Your task to perform on an android device: Empty the shopping cart on amazon. Add alienware area 51 to the cart on amazon, then select checkout. Image 0: 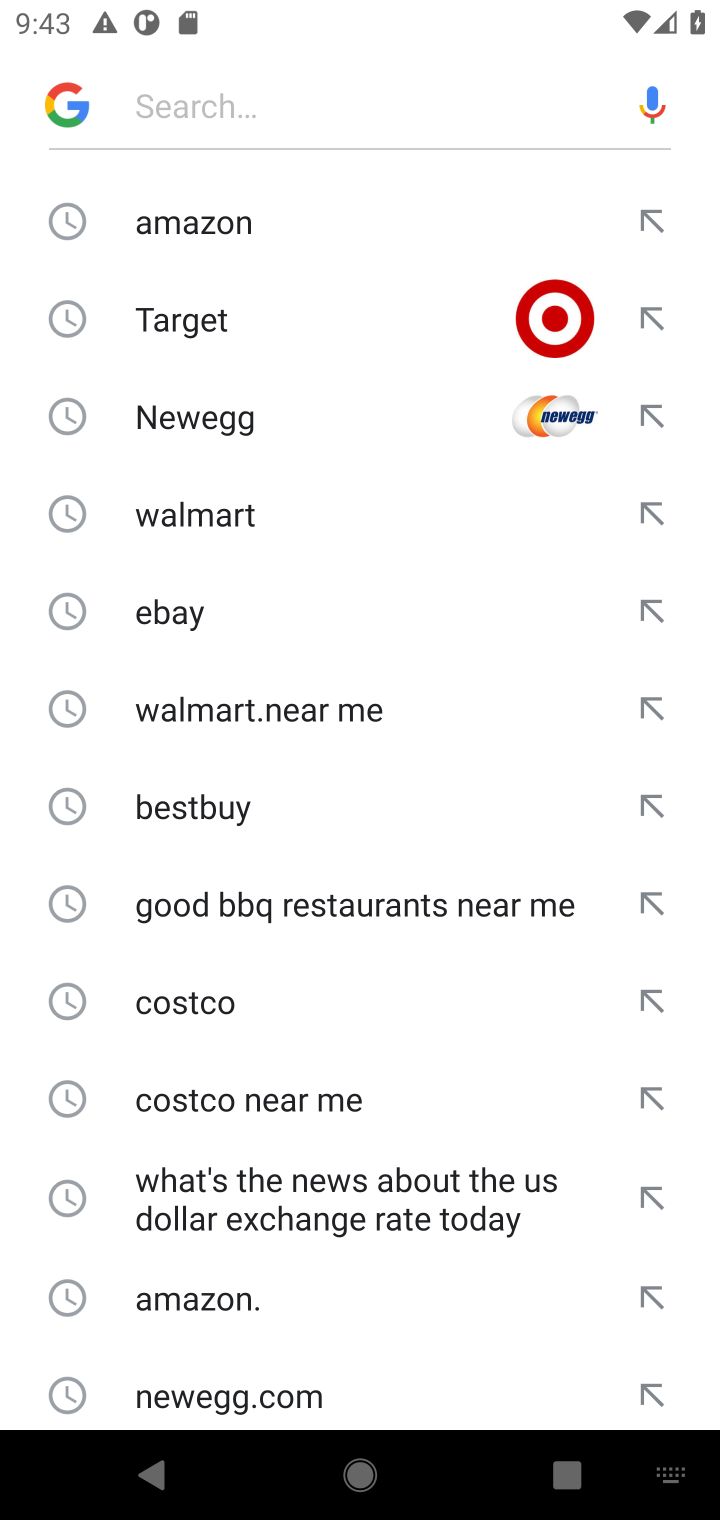
Step 0: click (156, 117)
Your task to perform on an android device: Empty the shopping cart on amazon. Add alienware area 51 to the cart on amazon, then select checkout. Image 1: 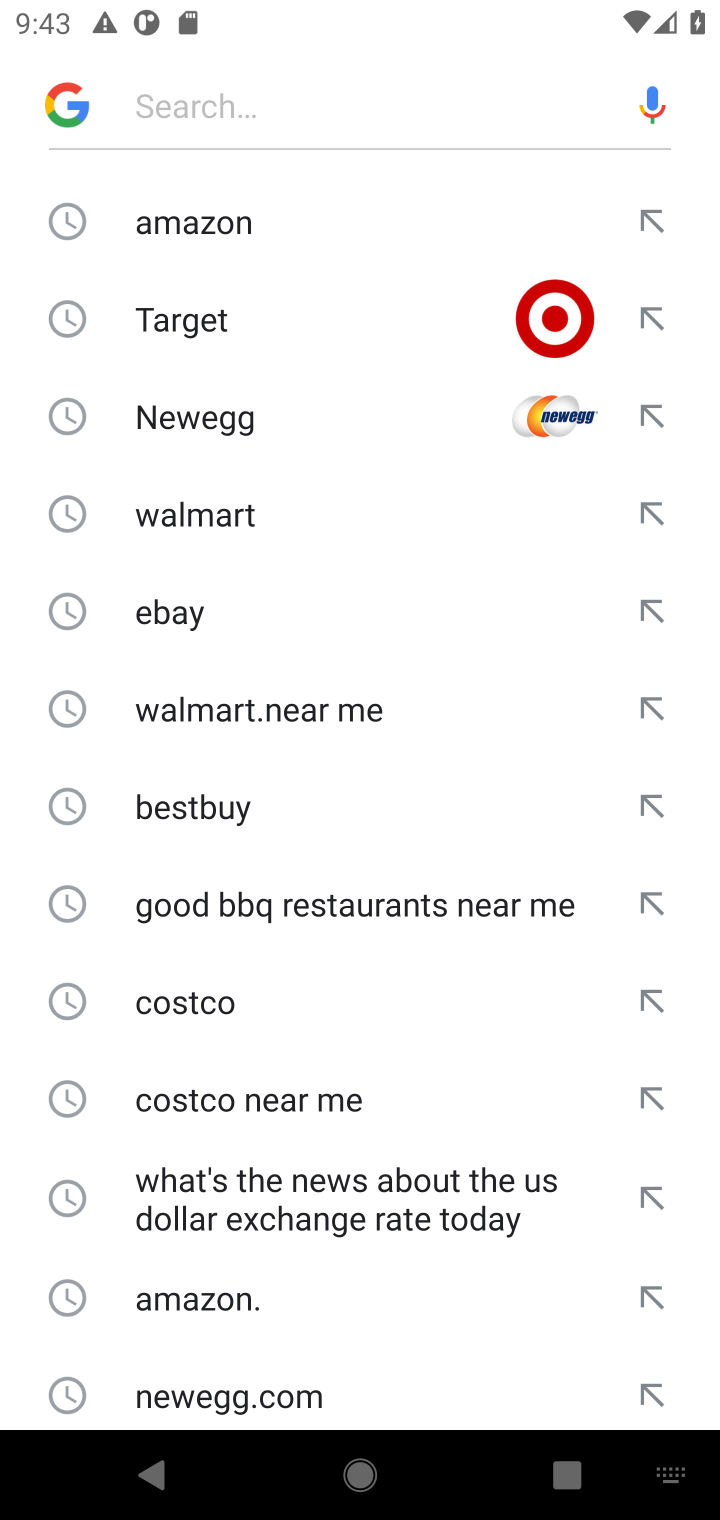
Step 1: type "amazon.com"
Your task to perform on an android device: Empty the shopping cart on amazon. Add alienware area 51 to the cart on amazon, then select checkout. Image 2: 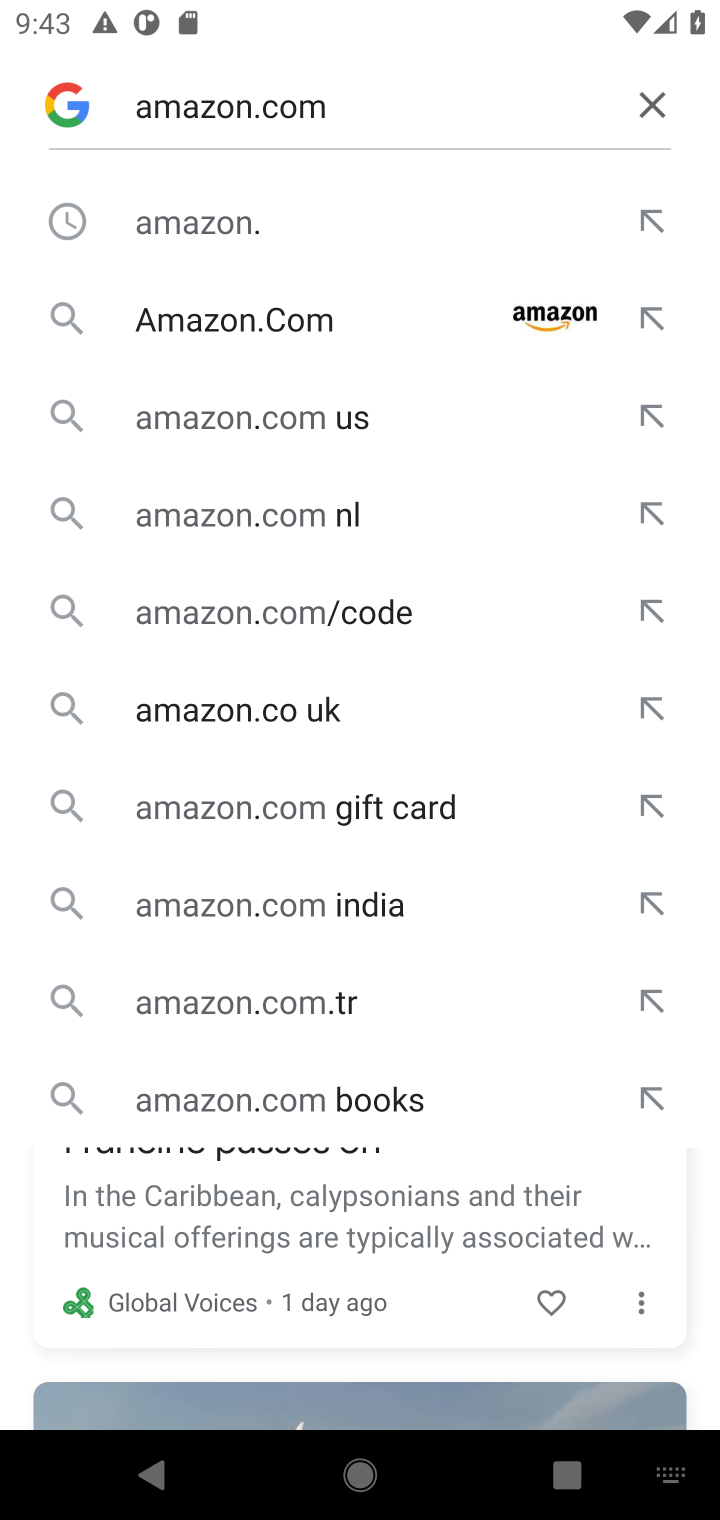
Step 2: click (182, 331)
Your task to perform on an android device: Empty the shopping cart on amazon. Add alienware area 51 to the cart on amazon, then select checkout. Image 3: 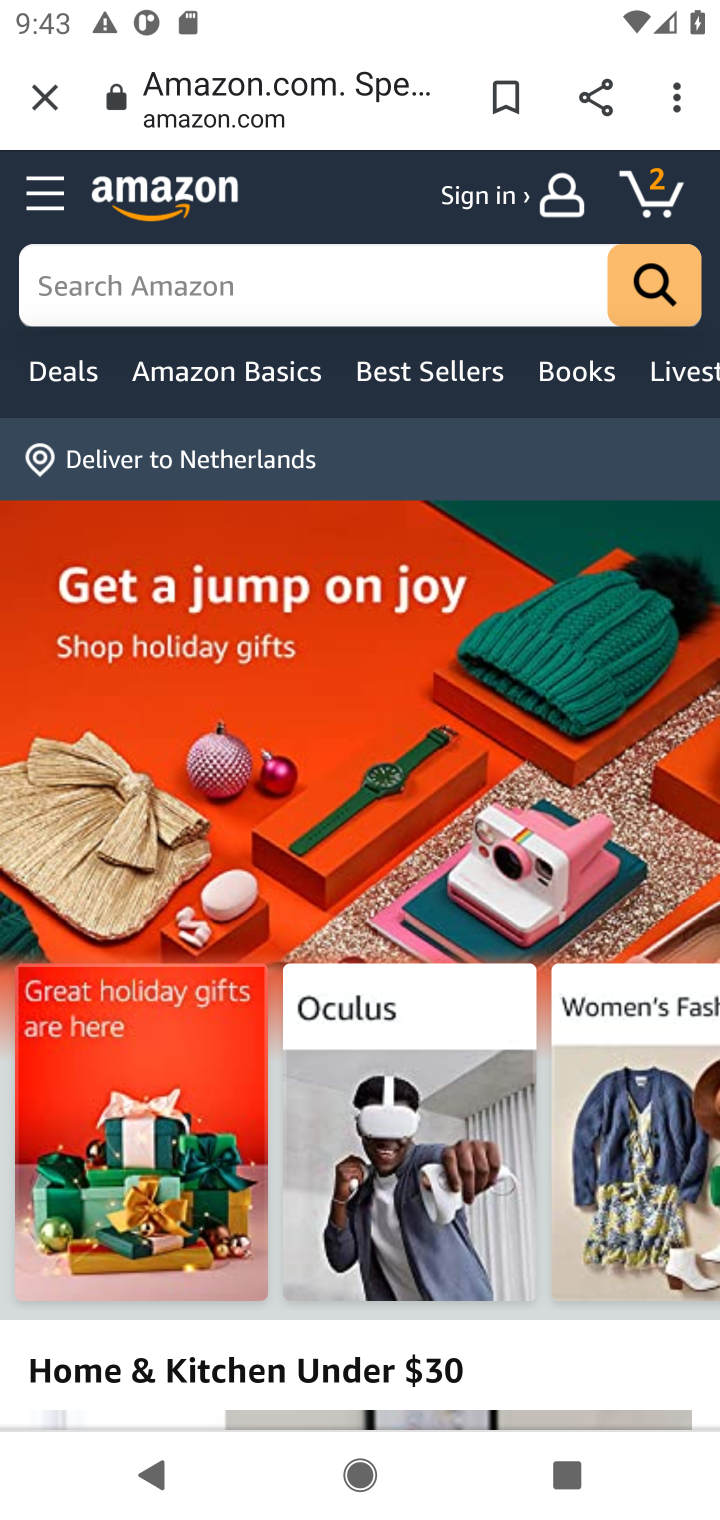
Step 3: click (643, 200)
Your task to perform on an android device: Empty the shopping cart on amazon. Add alienware area 51 to the cart on amazon, then select checkout. Image 4: 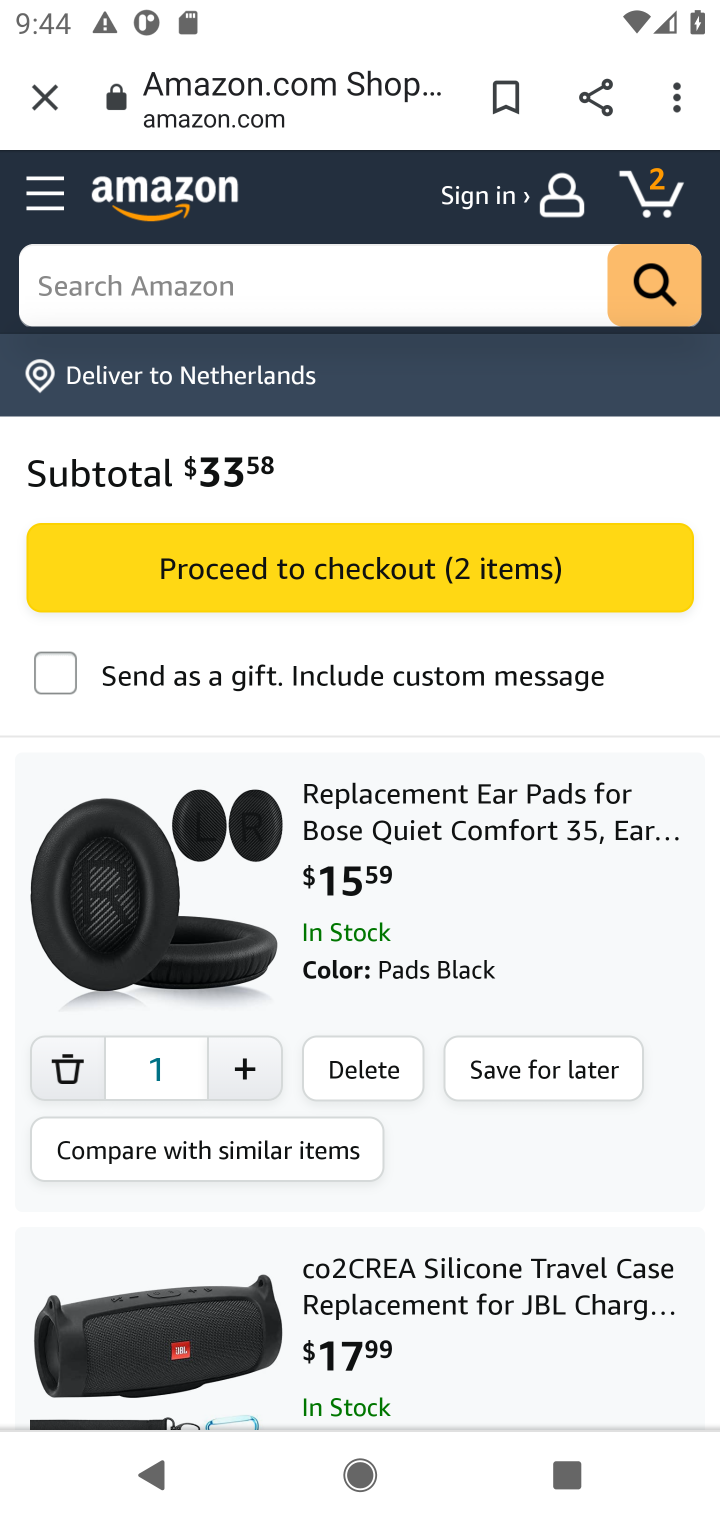
Step 4: click (359, 1078)
Your task to perform on an android device: Empty the shopping cart on amazon. Add alienware area 51 to the cart on amazon, then select checkout. Image 5: 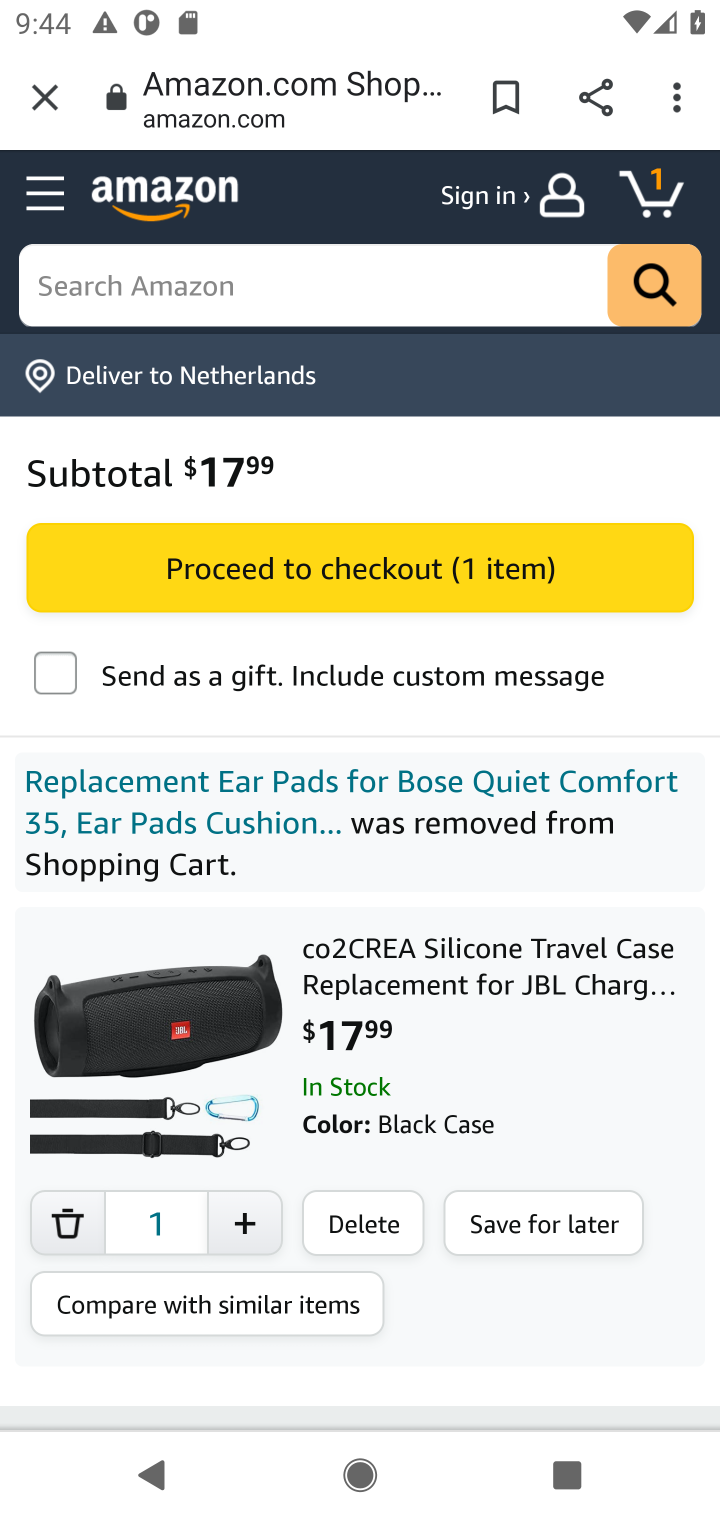
Step 5: click (349, 1244)
Your task to perform on an android device: Empty the shopping cart on amazon. Add alienware area 51 to the cart on amazon, then select checkout. Image 6: 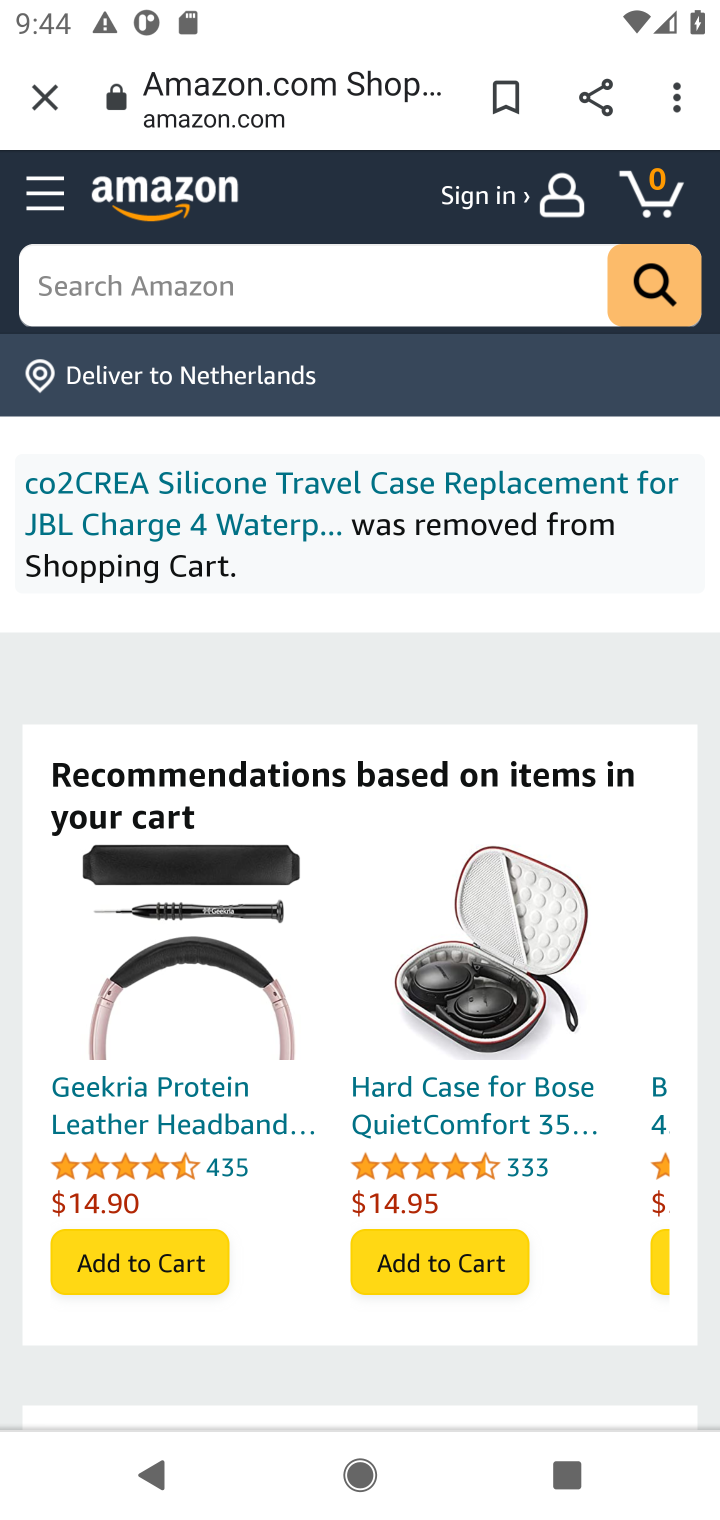
Step 6: click (185, 294)
Your task to perform on an android device: Empty the shopping cart on amazon. Add alienware area 51 to the cart on amazon, then select checkout. Image 7: 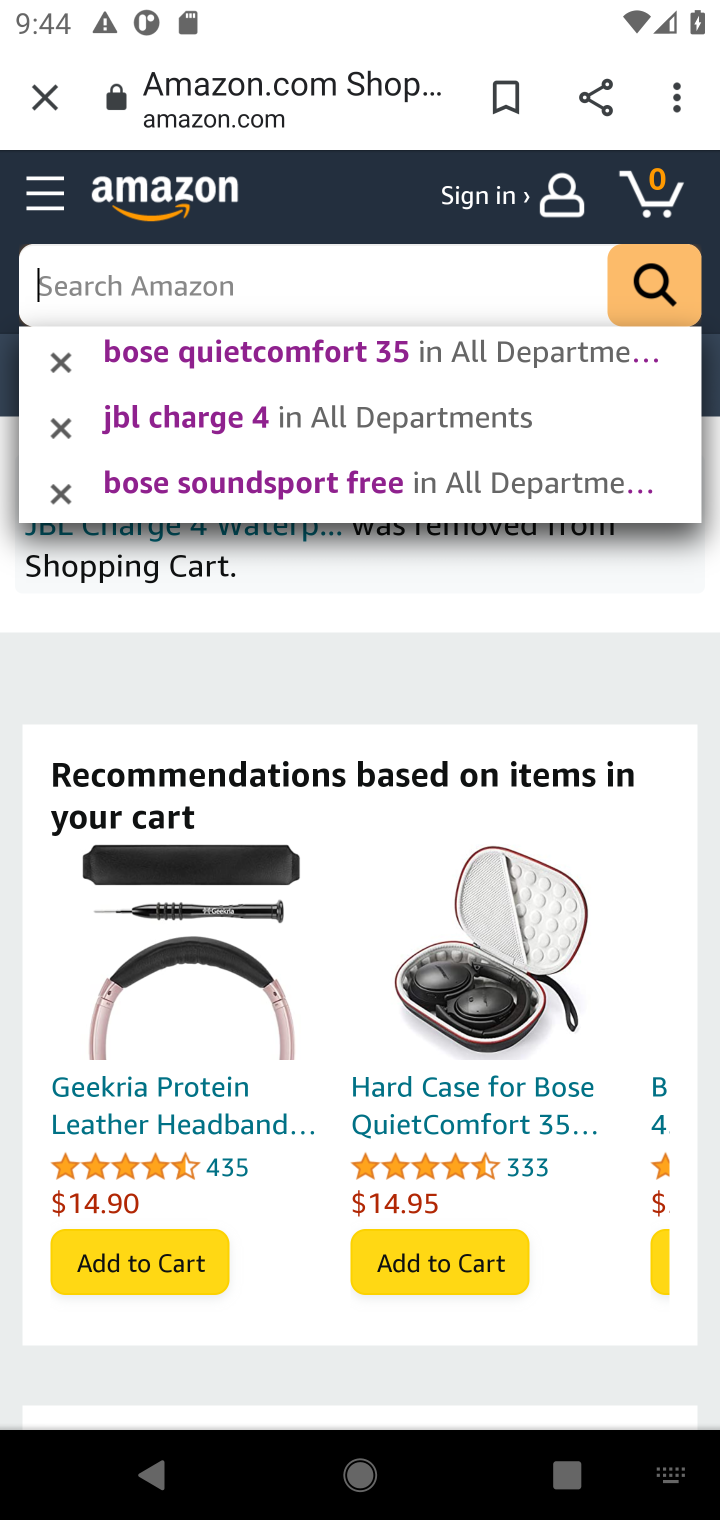
Step 7: type "alienware area 51 "
Your task to perform on an android device: Empty the shopping cart on amazon. Add alienware area 51 to the cart on amazon, then select checkout. Image 8: 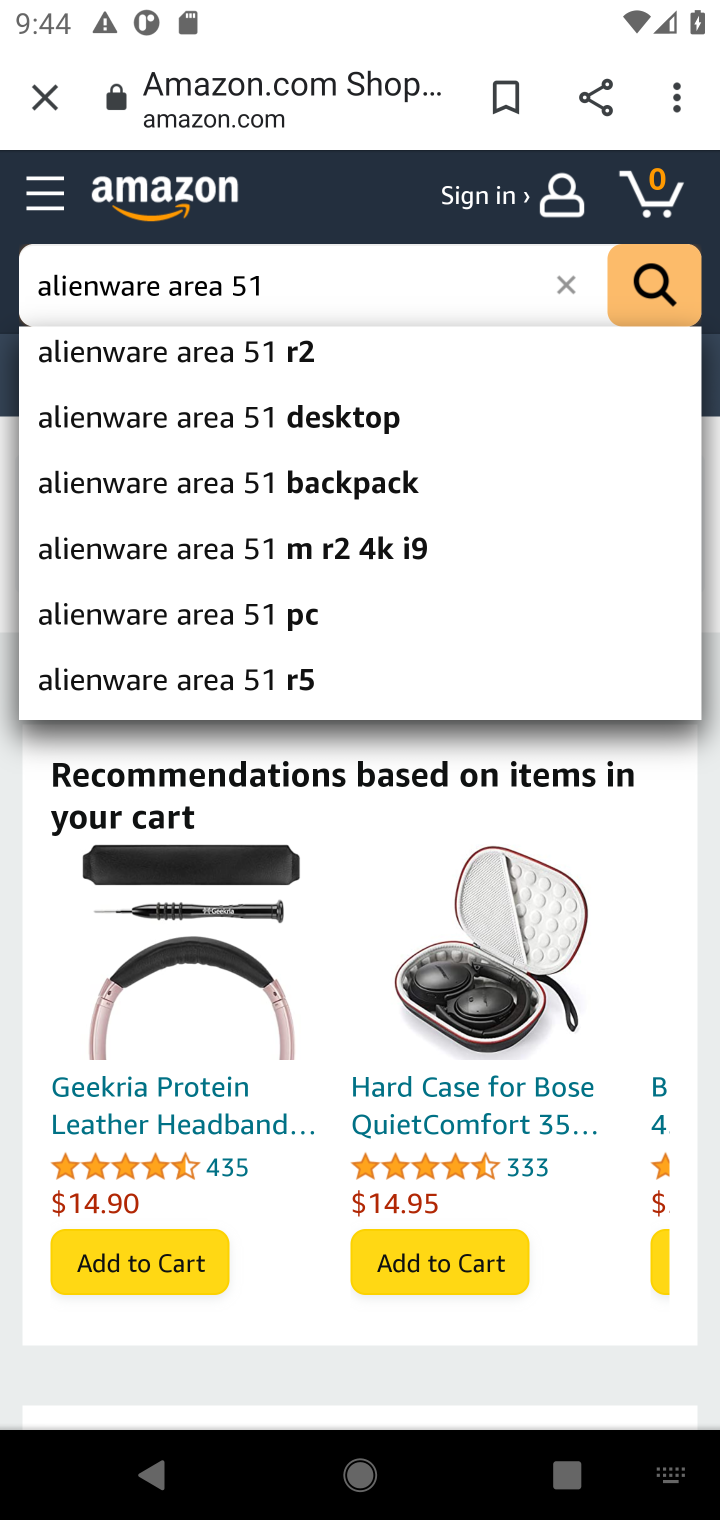
Step 8: click (665, 292)
Your task to perform on an android device: Empty the shopping cart on amazon. Add alienware area 51 to the cart on amazon, then select checkout. Image 9: 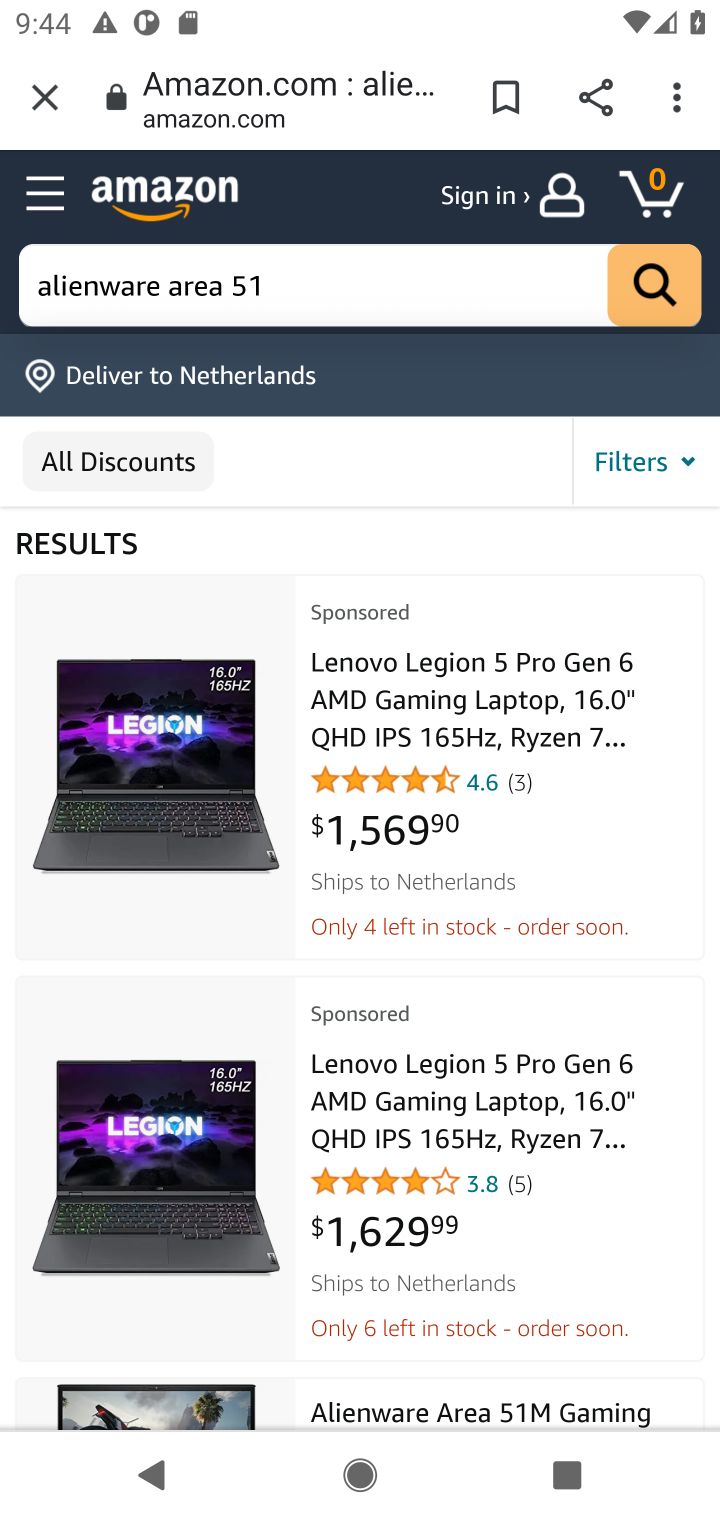
Step 9: drag from (327, 1151) to (323, 831)
Your task to perform on an android device: Empty the shopping cart on amazon. Add alienware area 51 to the cart on amazon, then select checkout. Image 10: 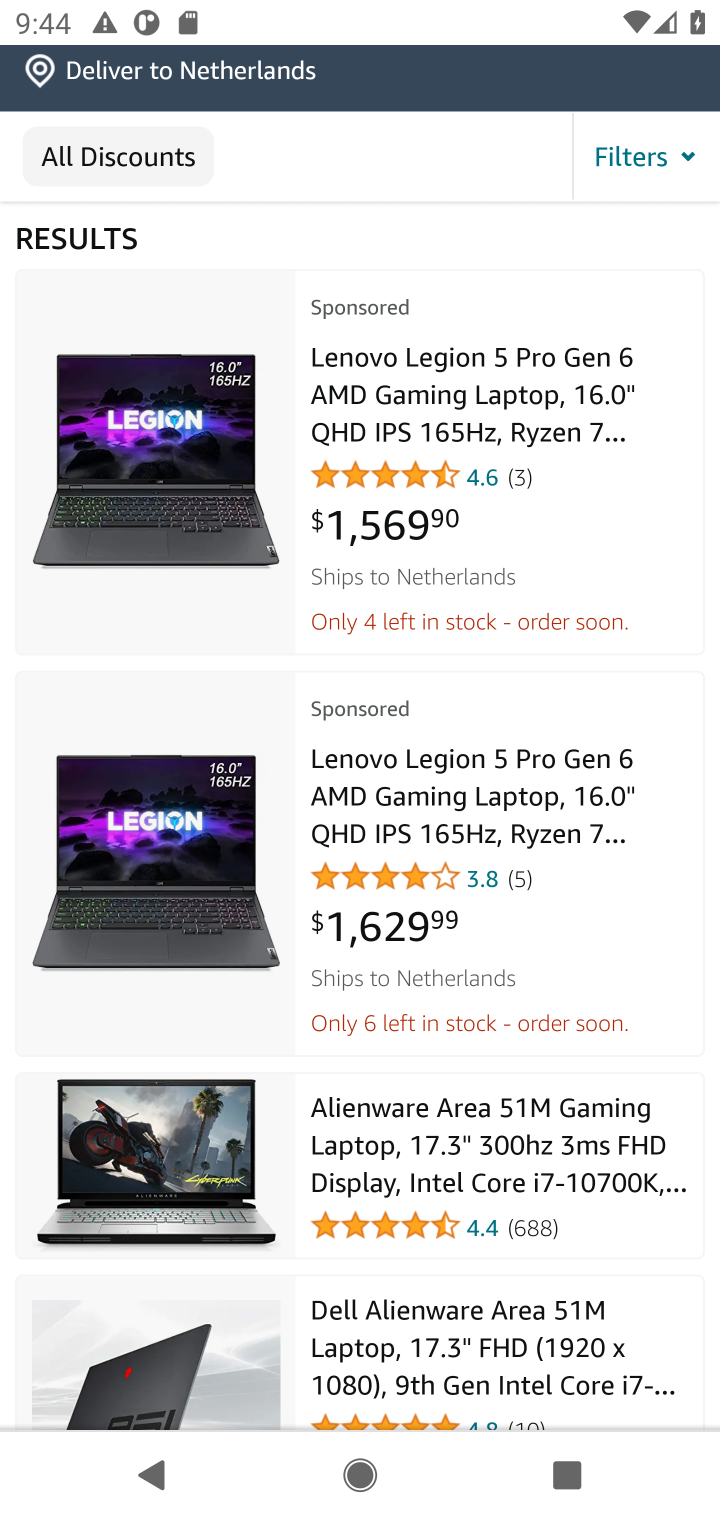
Step 10: drag from (367, 1098) to (363, 801)
Your task to perform on an android device: Empty the shopping cart on amazon. Add alienware area 51 to the cart on amazon, then select checkout. Image 11: 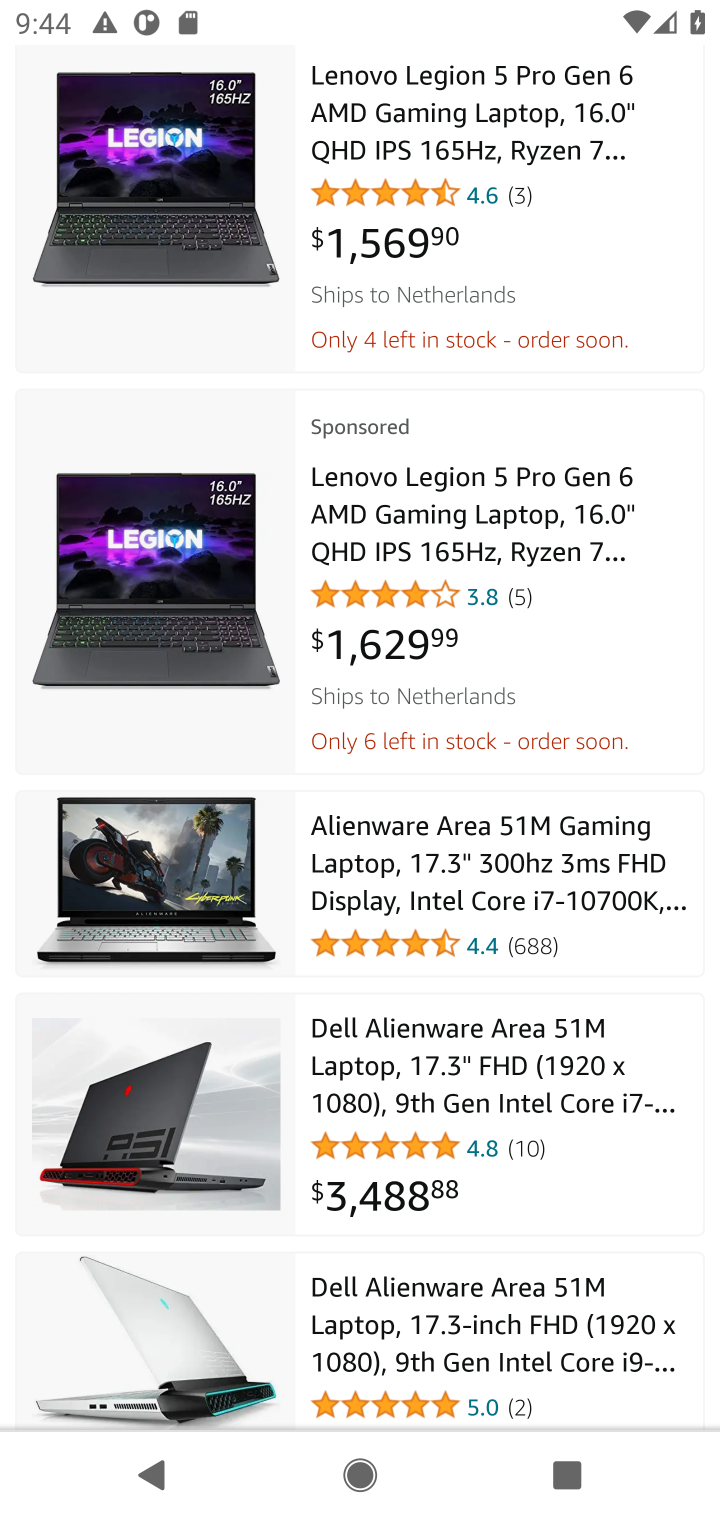
Step 11: drag from (386, 1011) to (395, 716)
Your task to perform on an android device: Empty the shopping cart on amazon. Add alienware area 51 to the cart on amazon, then select checkout. Image 12: 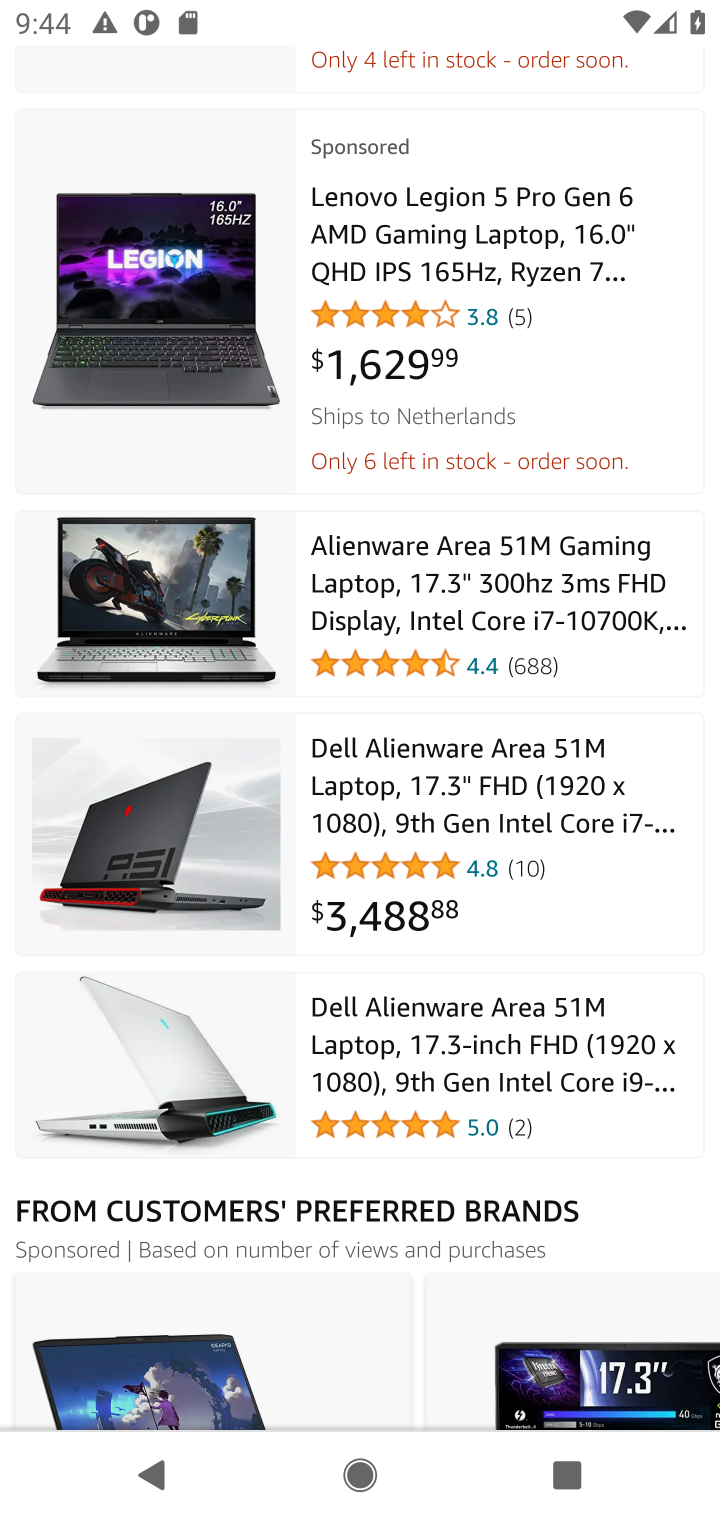
Step 12: click (395, 798)
Your task to perform on an android device: Empty the shopping cart on amazon. Add alienware area 51 to the cart on amazon, then select checkout. Image 13: 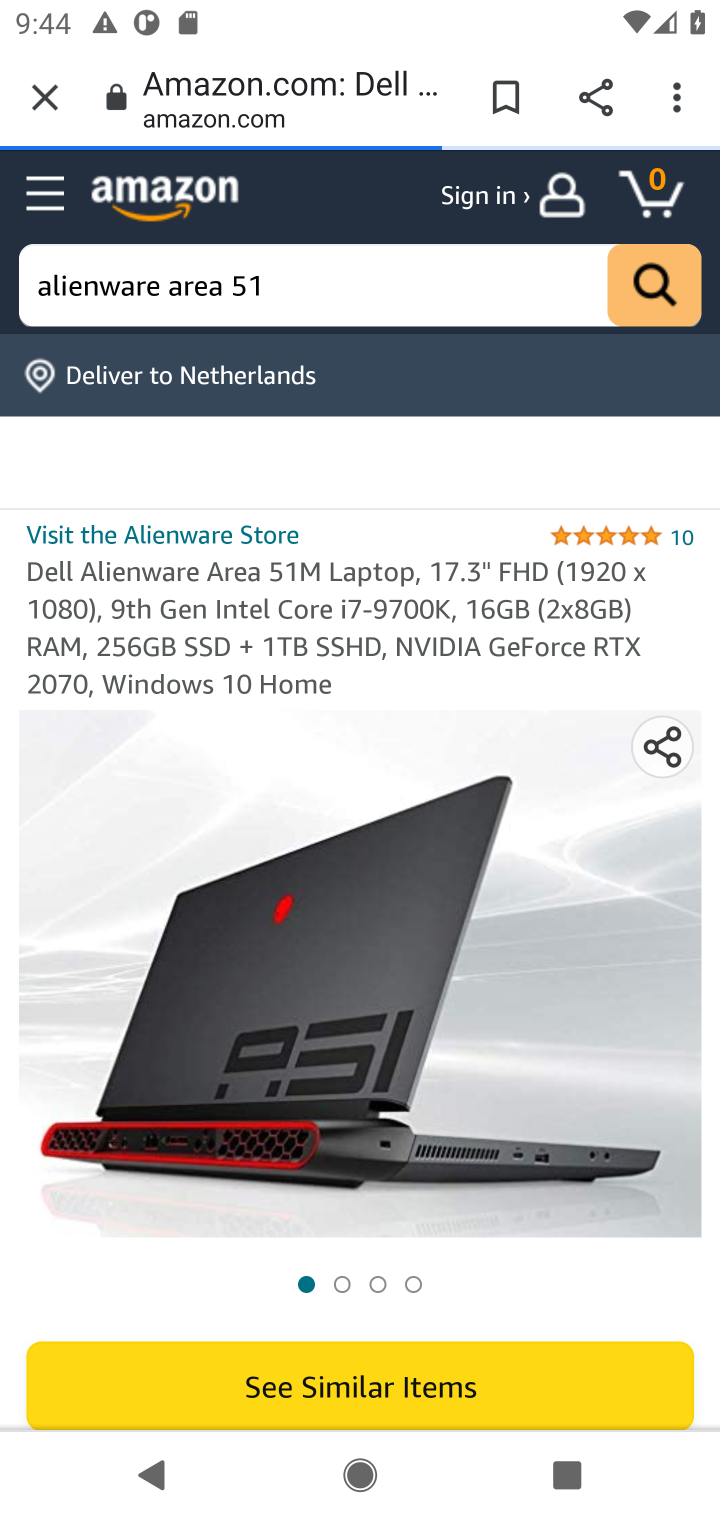
Step 13: task complete